Your task to perform on an android device: Go to Reddit.com Image 0: 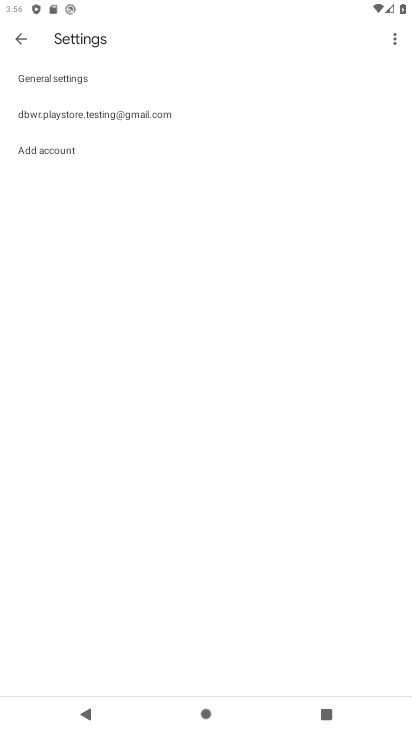
Step 0: press home button
Your task to perform on an android device: Go to Reddit.com Image 1: 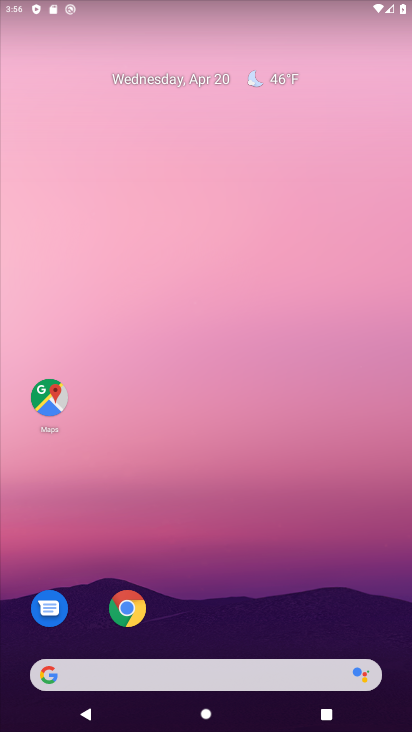
Step 1: click (117, 605)
Your task to perform on an android device: Go to Reddit.com Image 2: 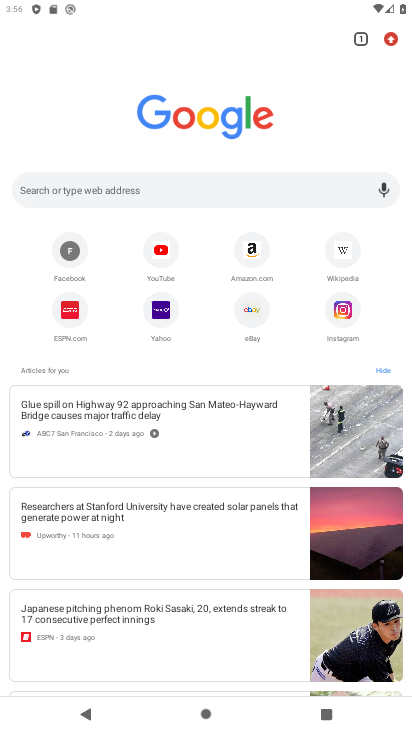
Step 2: click (281, 203)
Your task to perform on an android device: Go to Reddit.com Image 3: 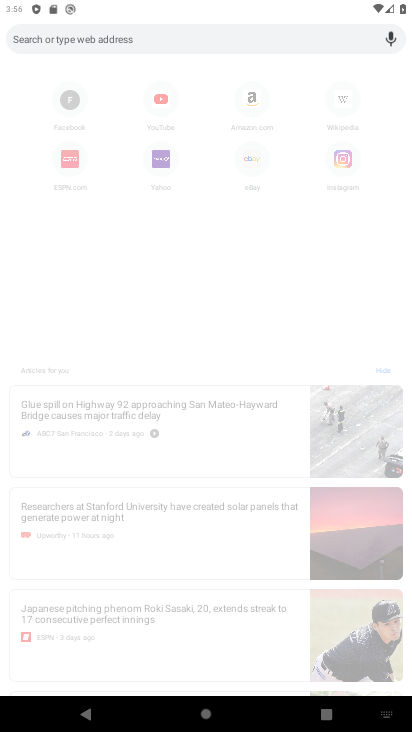
Step 3: type "reddit"
Your task to perform on an android device: Go to Reddit.com Image 4: 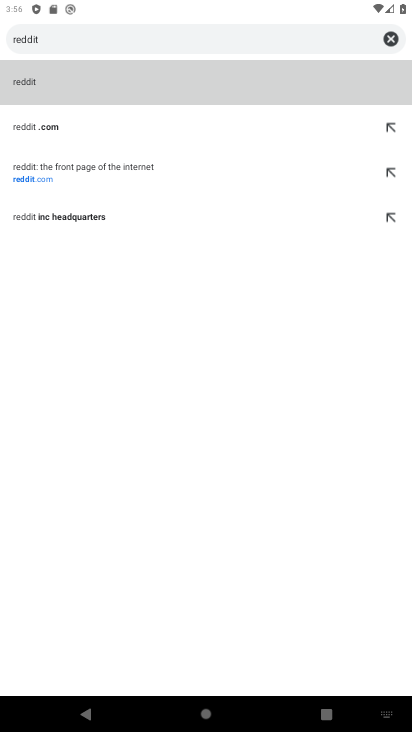
Step 4: click (40, 122)
Your task to perform on an android device: Go to Reddit.com Image 5: 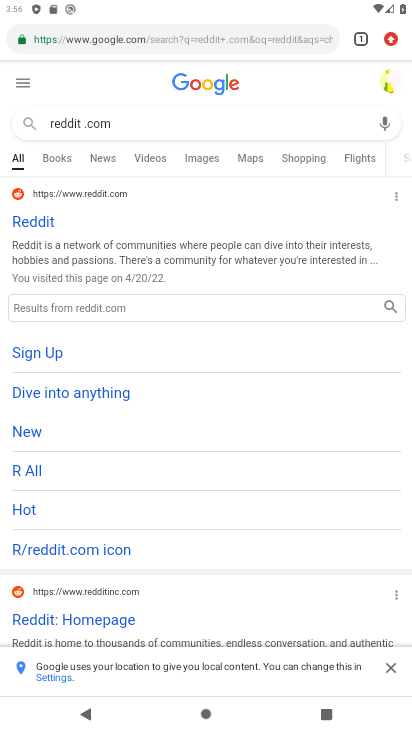
Step 5: click (37, 228)
Your task to perform on an android device: Go to Reddit.com Image 6: 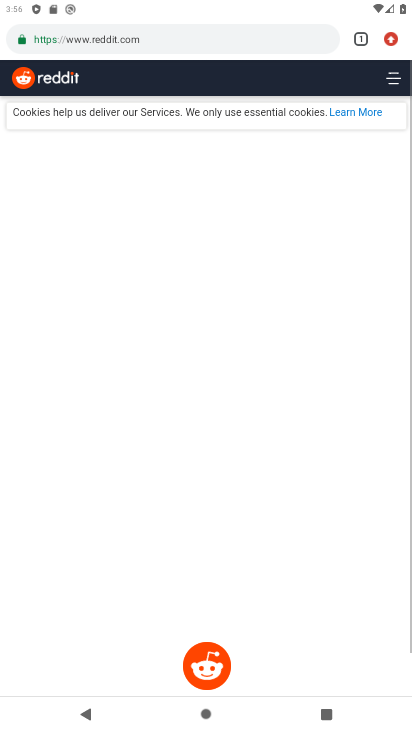
Step 6: task complete